Your task to perform on an android device: delete the emails in spam in the gmail app Image 0: 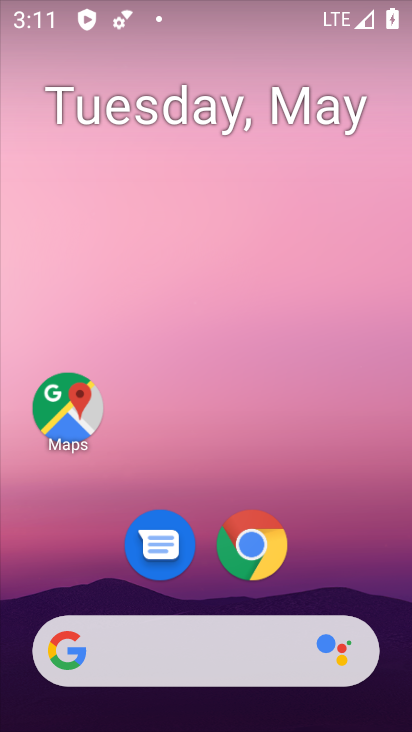
Step 0: drag from (319, 537) to (321, 134)
Your task to perform on an android device: delete the emails in spam in the gmail app Image 1: 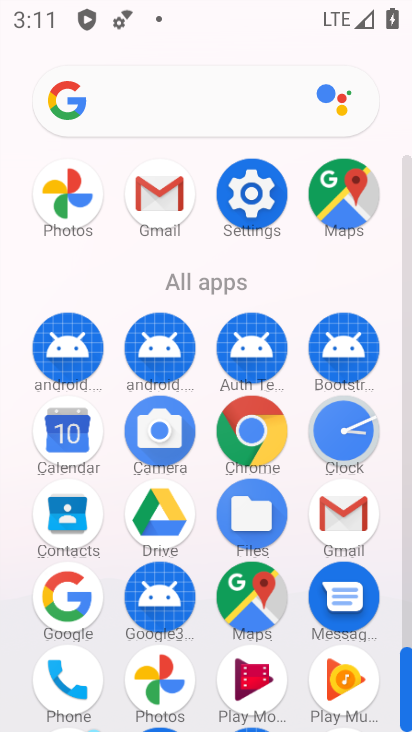
Step 1: click (339, 513)
Your task to perform on an android device: delete the emails in spam in the gmail app Image 2: 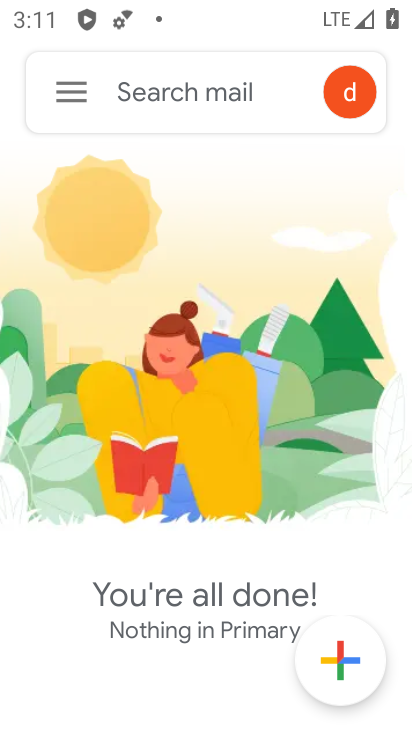
Step 2: click (81, 94)
Your task to perform on an android device: delete the emails in spam in the gmail app Image 3: 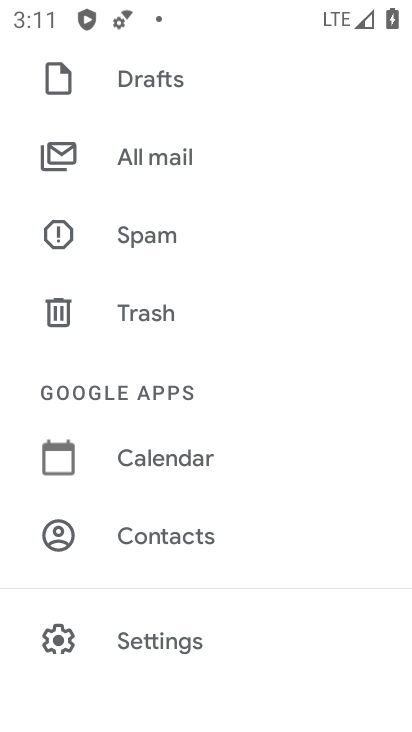
Step 3: click (168, 243)
Your task to perform on an android device: delete the emails in spam in the gmail app Image 4: 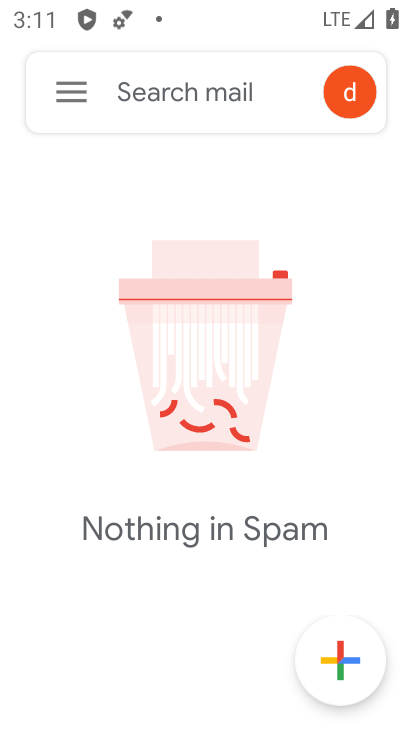
Step 4: task complete